Your task to perform on an android device: What is the news today? Image 0: 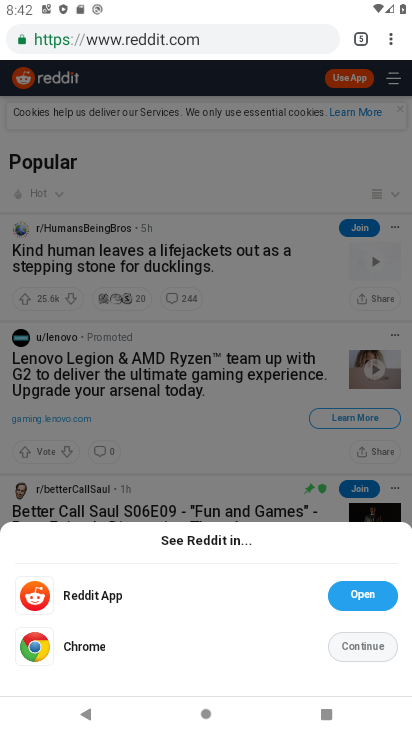
Step 0: press home button
Your task to perform on an android device: What is the news today? Image 1: 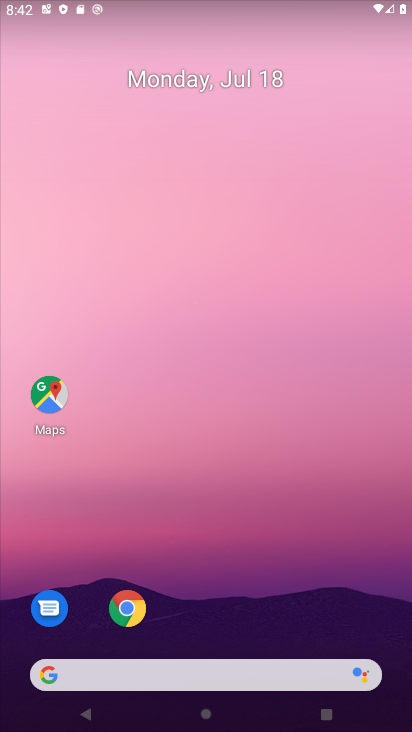
Step 1: task complete